Your task to perform on an android device: Show me productivity apps on the Play Store Image 0: 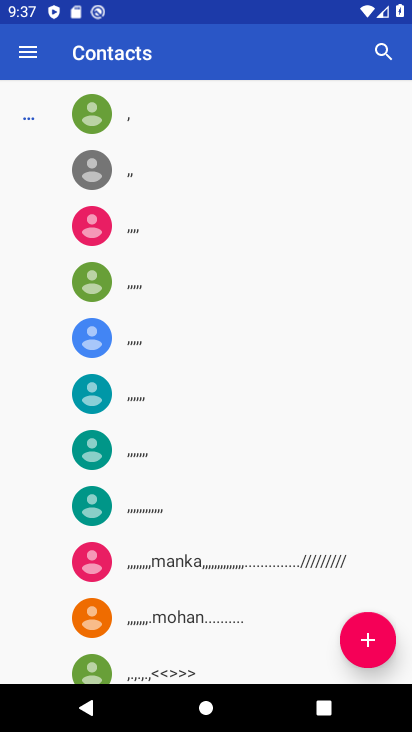
Step 0: press home button
Your task to perform on an android device: Show me productivity apps on the Play Store Image 1: 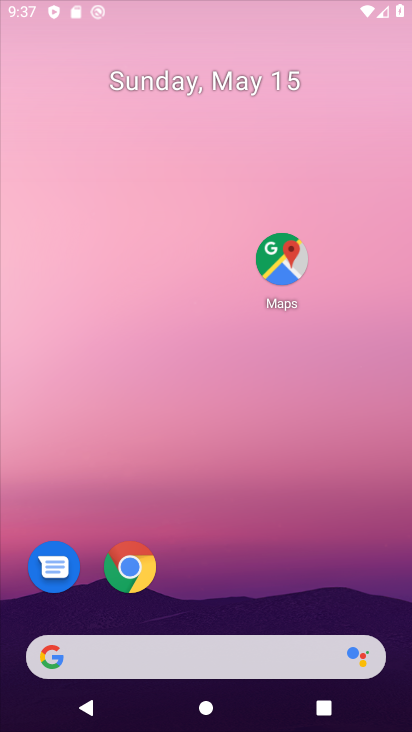
Step 1: drag from (221, 583) to (234, 85)
Your task to perform on an android device: Show me productivity apps on the Play Store Image 2: 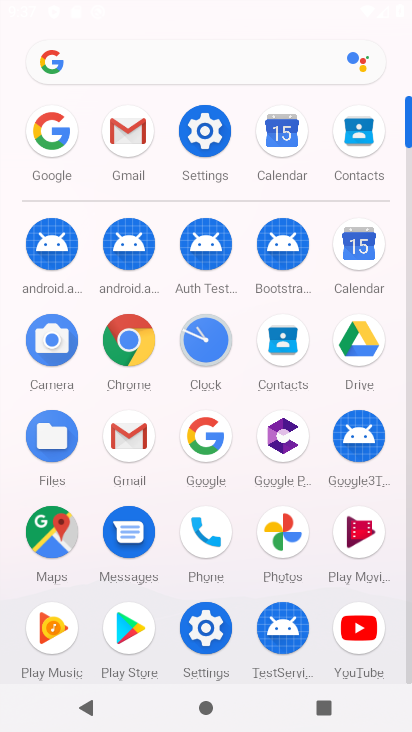
Step 2: click (128, 621)
Your task to perform on an android device: Show me productivity apps on the Play Store Image 3: 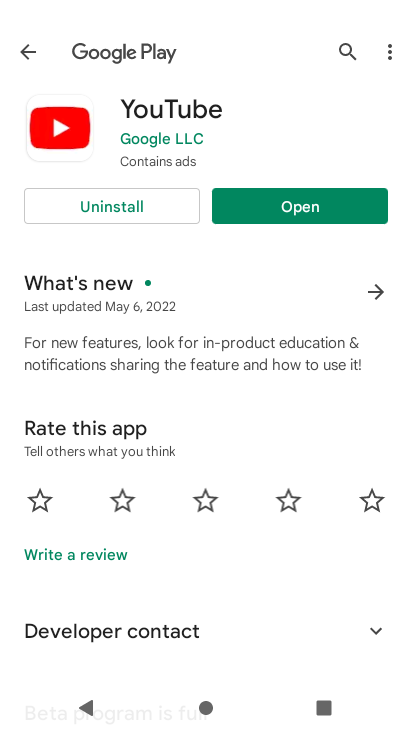
Step 3: press back button
Your task to perform on an android device: Show me productivity apps on the Play Store Image 4: 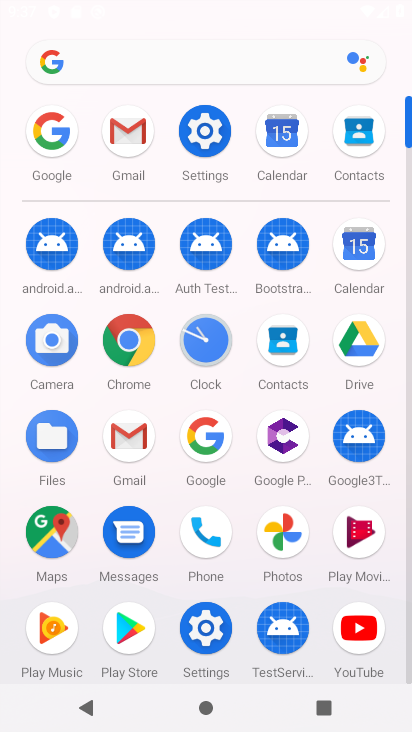
Step 4: click (128, 633)
Your task to perform on an android device: Show me productivity apps on the Play Store Image 5: 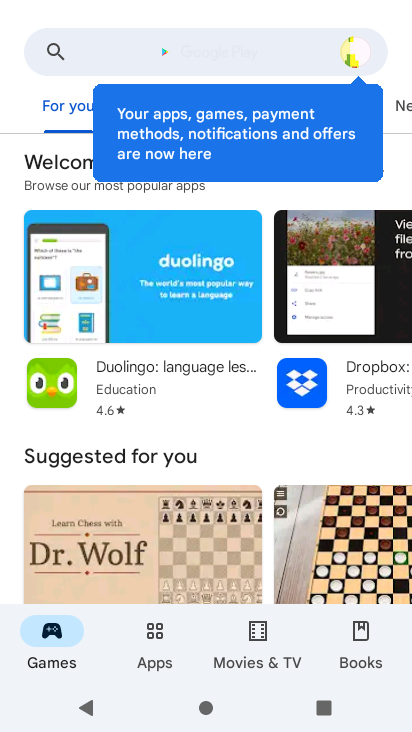
Step 5: click (156, 645)
Your task to perform on an android device: Show me productivity apps on the Play Store Image 6: 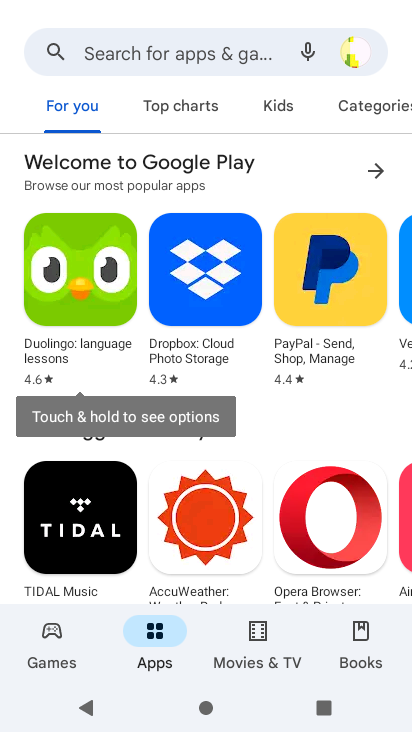
Step 6: click (368, 105)
Your task to perform on an android device: Show me productivity apps on the Play Store Image 7: 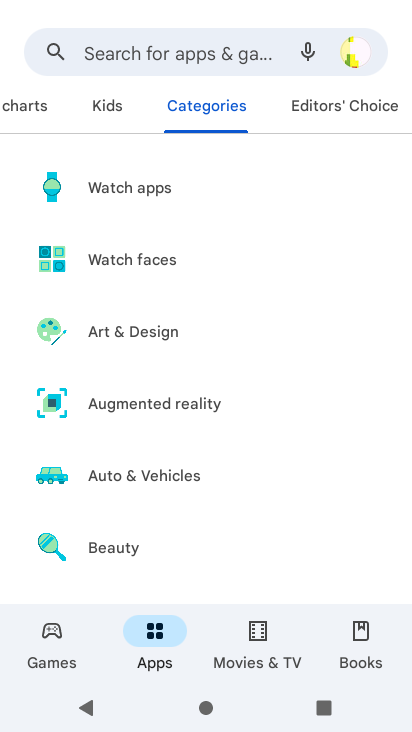
Step 7: drag from (230, 506) to (241, 92)
Your task to perform on an android device: Show me productivity apps on the Play Store Image 8: 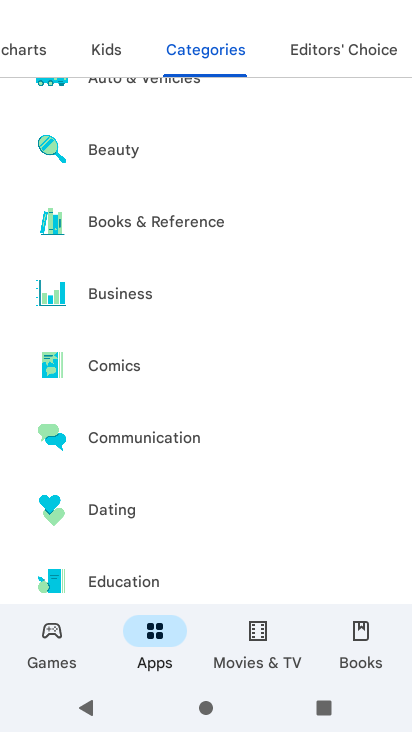
Step 8: drag from (260, 522) to (236, 92)
Your task to perform on an android device: Show me productivity apps on the Play Store Image 9: 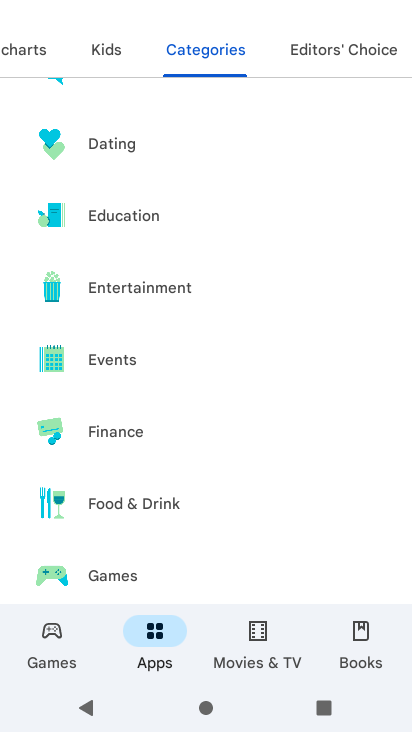
Step 9: drag from (221, 562) to (222, 115)
Your task to perform on an android device: Show me productivity apps on the Play Store Image 10: 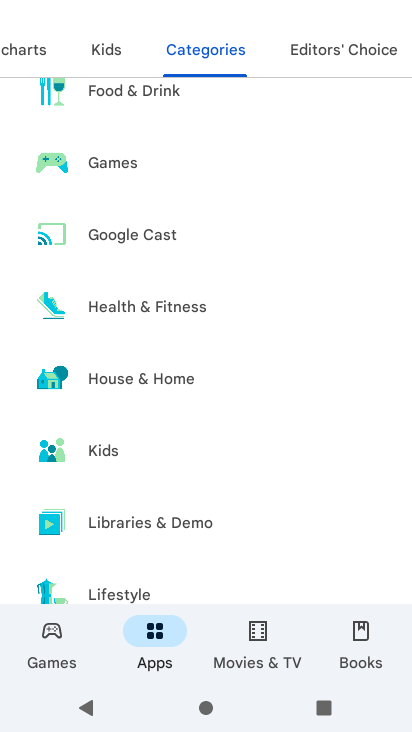
Step 10: drag from (246, 547) to (238, 95)
Your task to perform on an android device: Show me productivity apps on the Play Store Image 11: 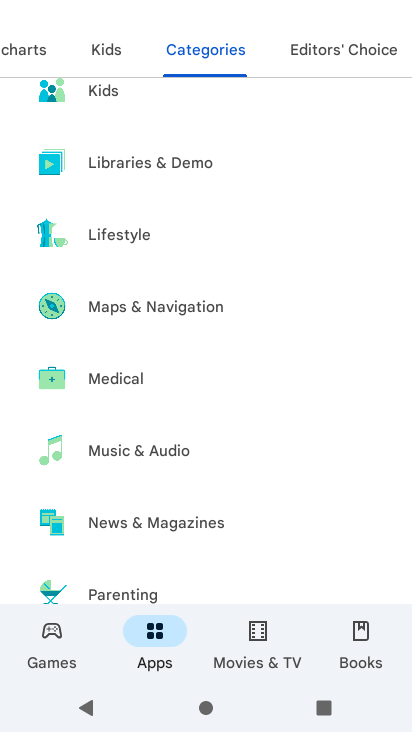
Step 11: drag from (271, 512) to (235, 106)
Your task to perform on an android device: Show me productivity apps on the Play Store Image 12: 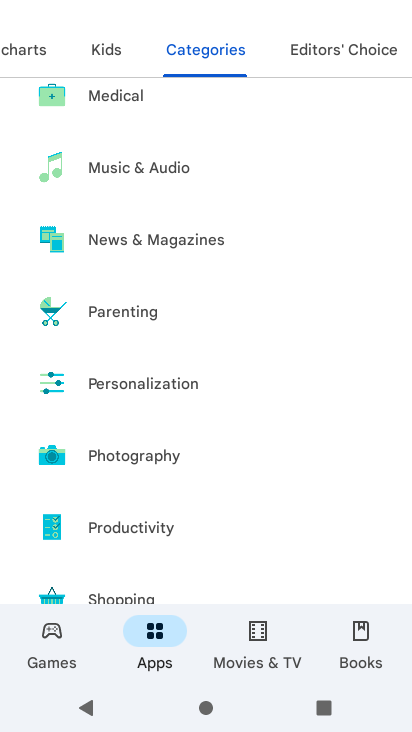
Step 12: click (125, 523)
Your task to perform on an android device: Show me productivity apps on the Play Store Image 13: 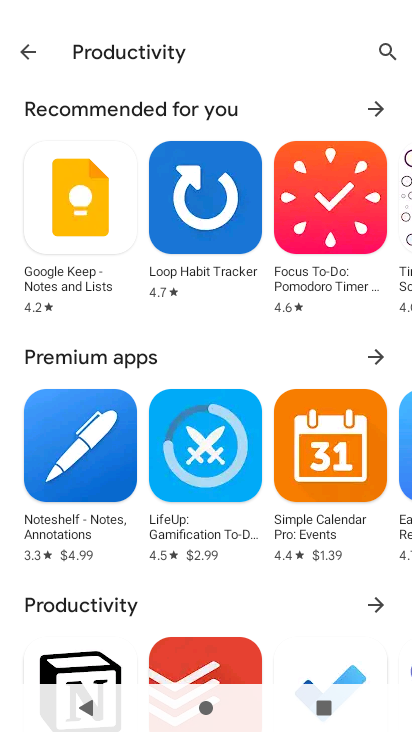
Step 13: drag from (166, 596) to (217, 347)
Your task to perform on an android device: Show me productivity apps on the Play Store Image 14: 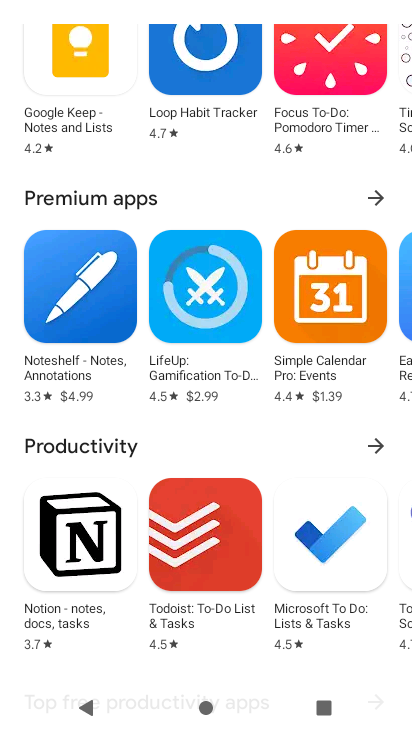
Step 14: click (359, 441)
Your task to perform on an android device: Show me productivity apps on the Play Store Image 15: 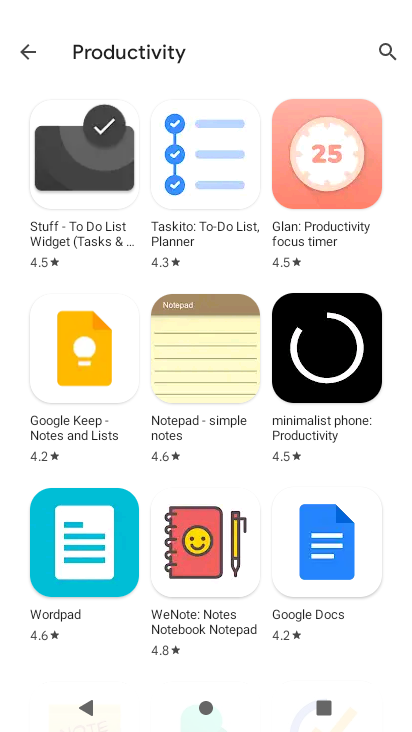
Step 15: task complete